Your task to perform on an android device: check storage Image 0: 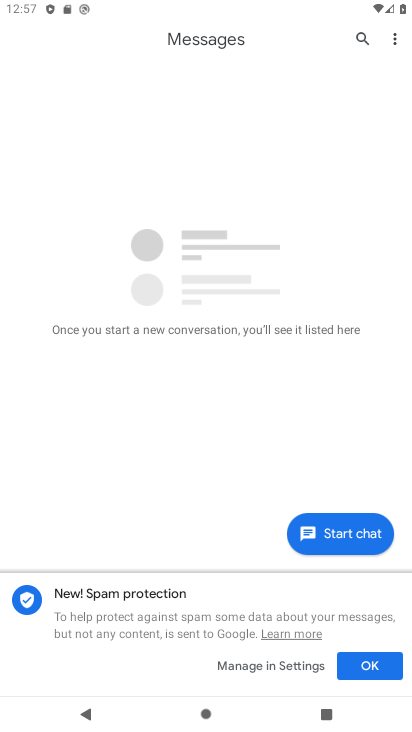
Step 0: drag from (247, 565) to (265, 107)
Your task to perform on an android device: check storage Image 1: 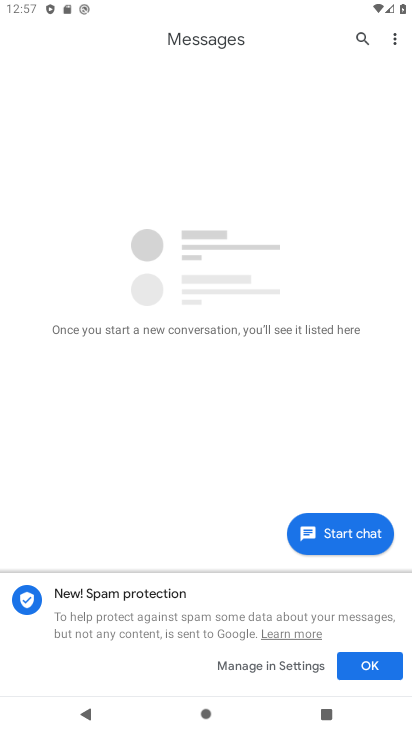
Step 1: press back button
Your task to perform on an android device: check storage Image 2: 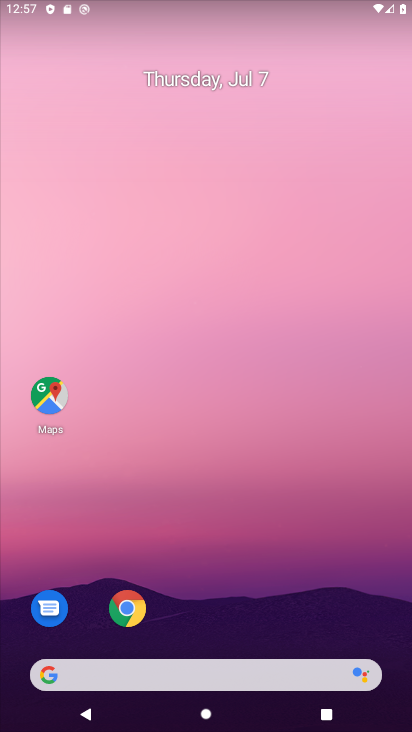
Step 2: drag from (178, 615) to (237, 38)
Your task to perform on an android device: check storage Image 3: 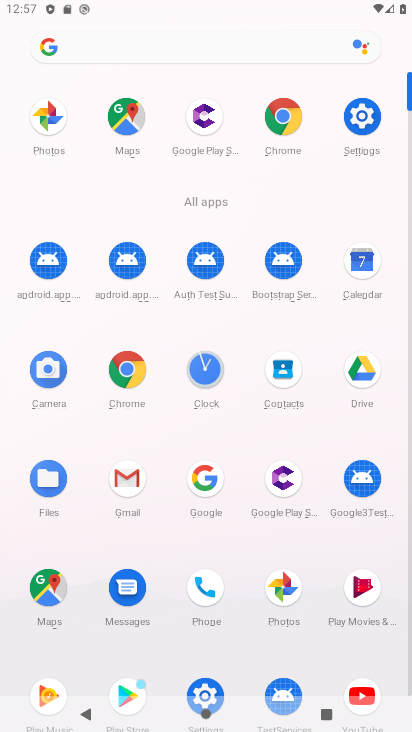
Step 3: click (363, 107)
Your task to perform on an android device: check storage Image 4: 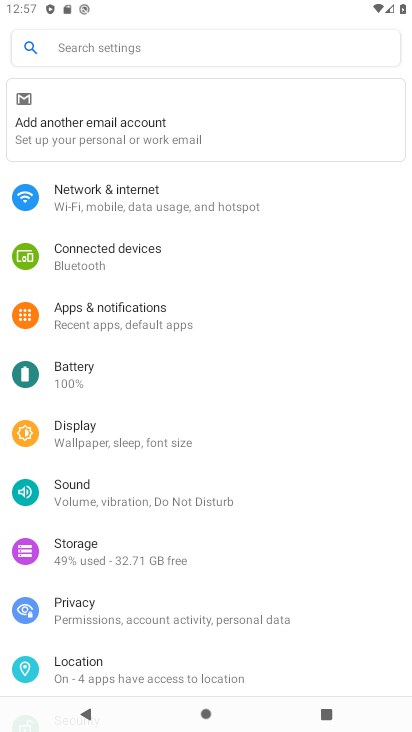
Step 4: click (110, 551)
Your task to perform on an android device: check storage Image 5: 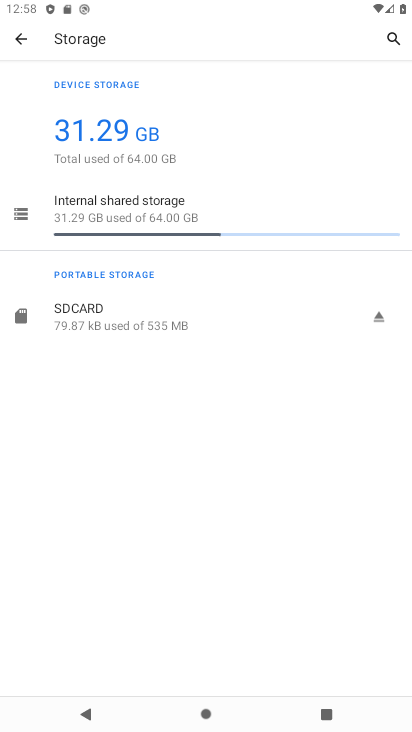
Step 5: click (193, 211)
Your task to perform on an android device: check storage Image 6: 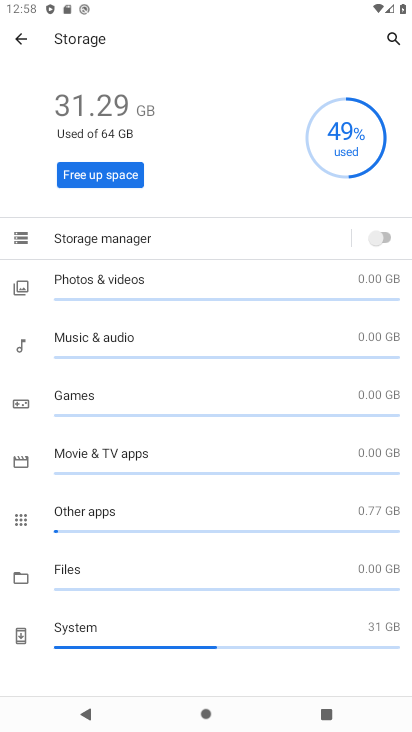
Step 6: task complete